Your task to perform on an android device: clear history in the chrome app Image 0: 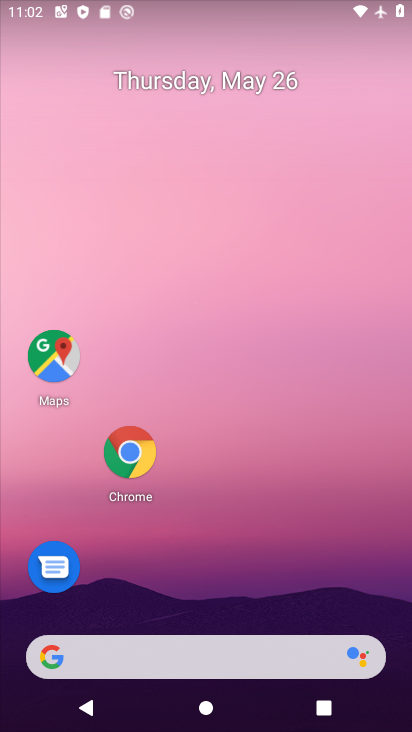
Step 0: press home button
Your task to perform on an android device: clear history in the chrome app Image 1: 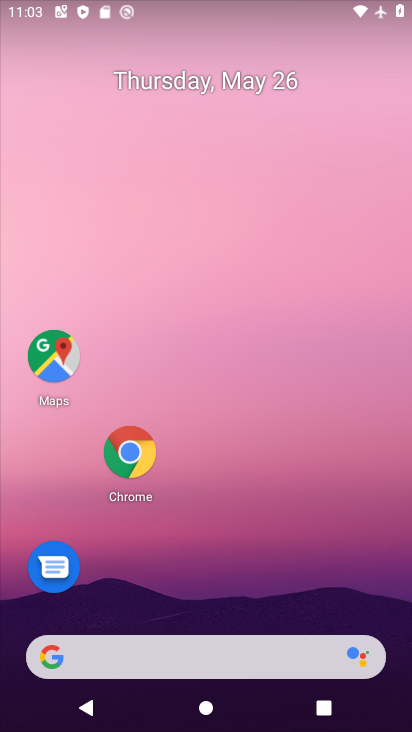
Step 1: click (139, 460)
Your task to perform on an android device: clear history in the chrome app Image 2: 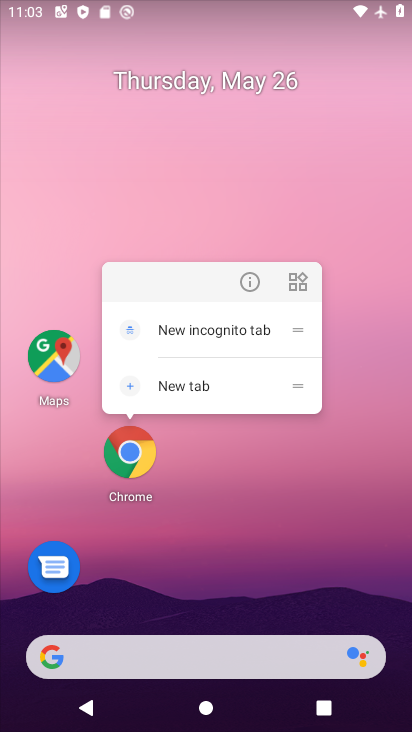
Step 2: click (131, 458)
Your task to perform on an android device: clear history in the chrome app Image 3: 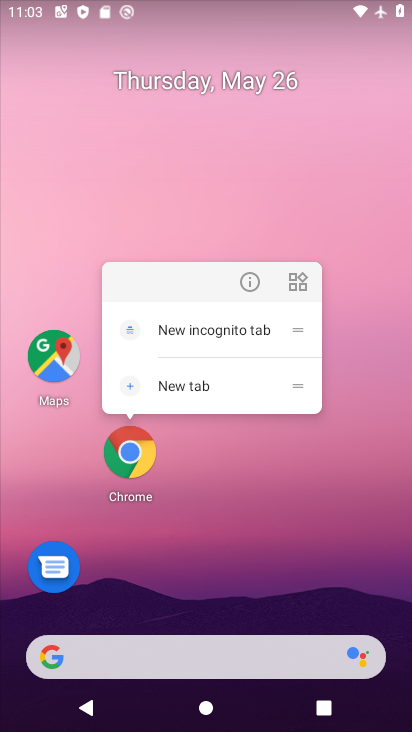
Step 3: click (128, 462)
Your task to perform on an android device: clear history in the chrome app Image 4: 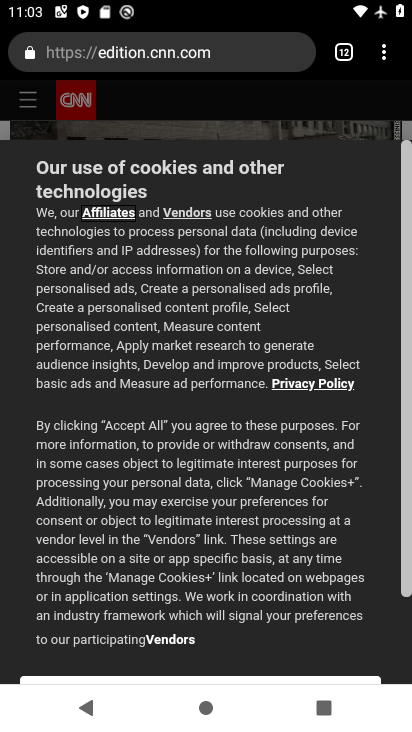
Step 4: drag from (383, 55) to (219, 286)
Your task to perform on an android device: clear history in the chrome app Image 5: 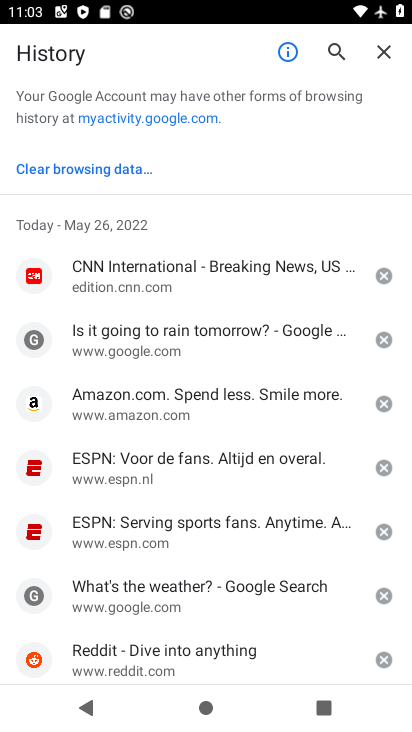
Step 5: click (93, 166)
Your task to perform on an android device: clear history in the chrome app Image 6: 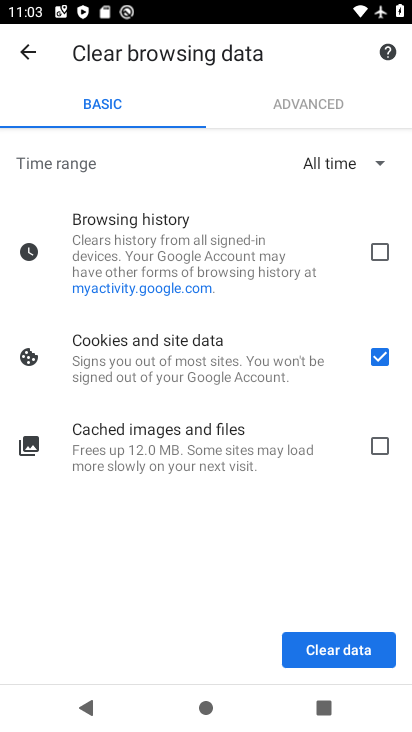
Step 6: click (378, 245)
Your task to perform on an android device: clear history in the chrome app Image 7: 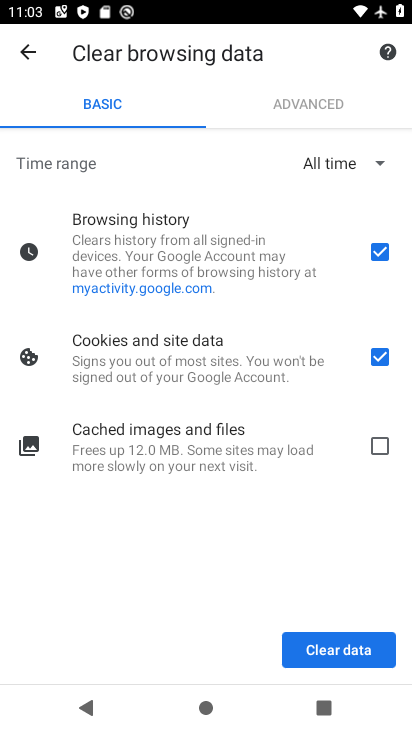
Step 7: click (380, 442)
Your task to perform on an android device: clear history in the chrome app Image 8: 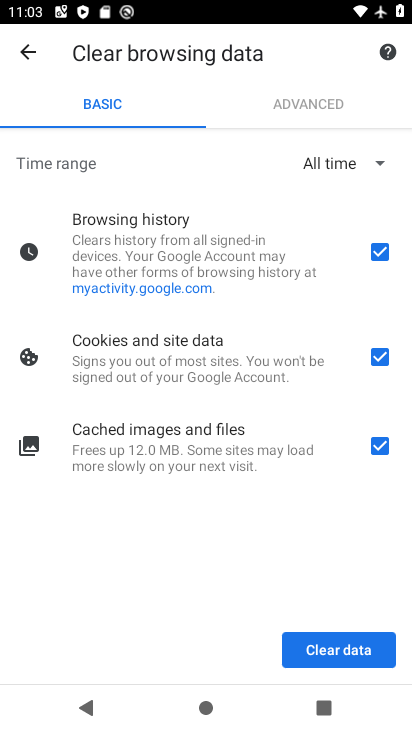
Step 8: click (328, 650)
Your task to perform on an android device: clear history in the chrome app Image 9: 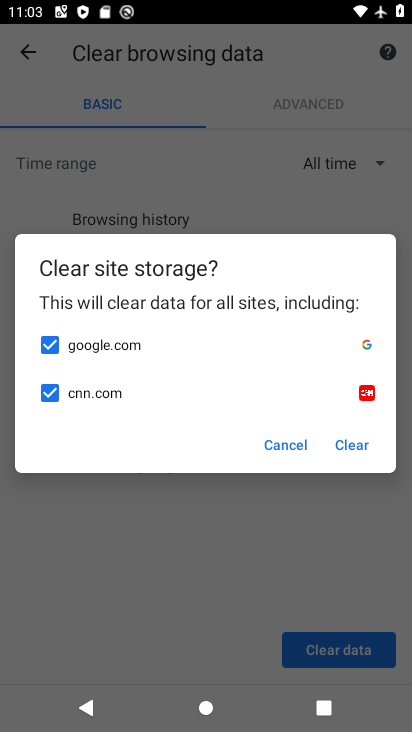
Step 9: click (344, 438)
Your task to perform on an android device: clear history in the chrome app Image 10: 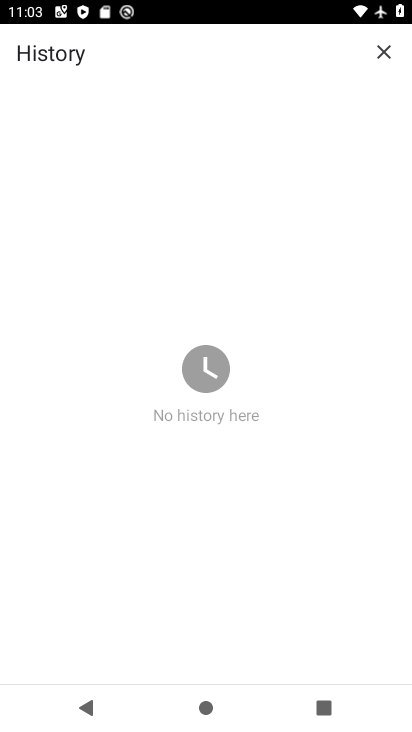
Step 10: task complete